Your task to perform on an android device: check storage Image 0: 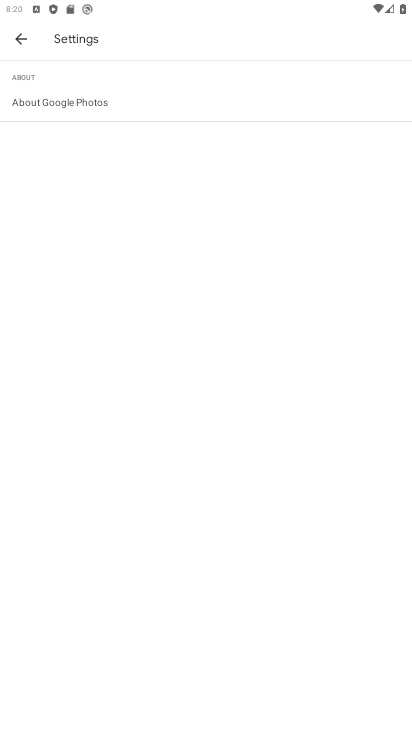
Step 0: press home button
Your task to perform on an android device: check storage Image 1: 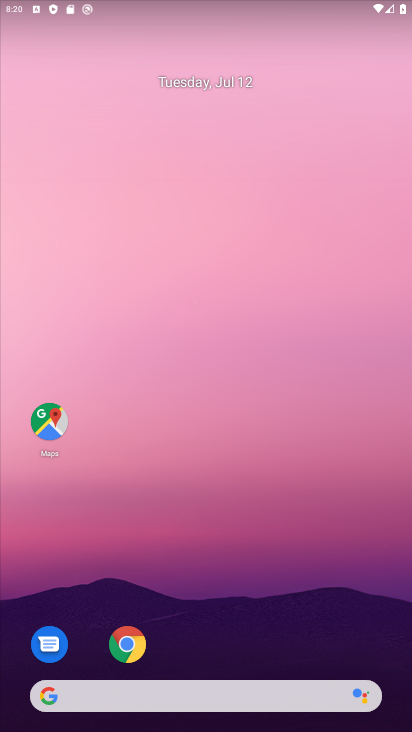
Step 1: drag from (377, 628) to (354, 154)
Your task to perform on an android device: check storage Image 2: 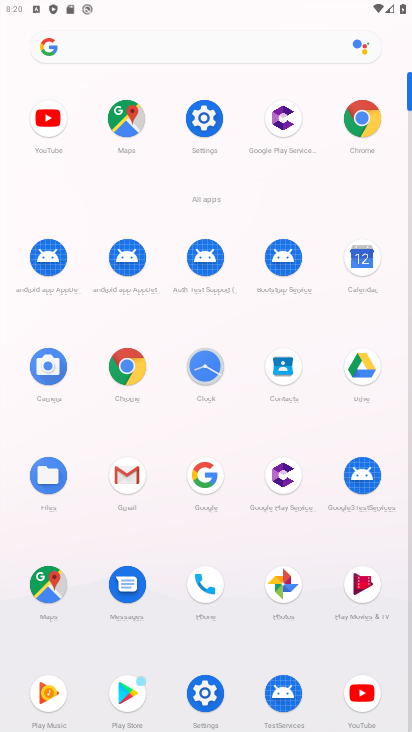
Step 2: click (203, 692)
Your task to perform on an android device: check storage Image 3: 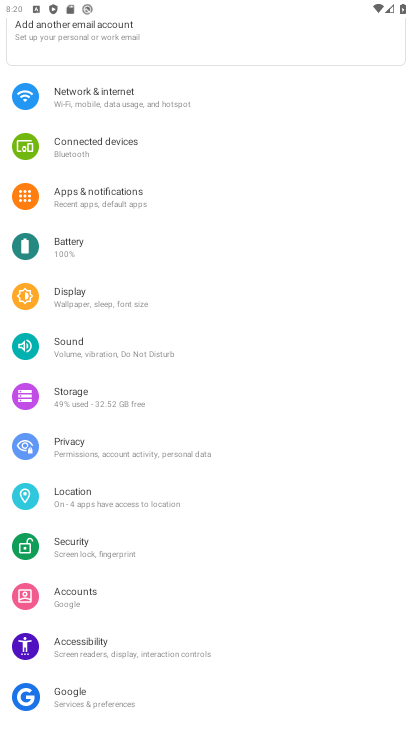
Step 3: click (75, 390)
Your task to perform on an android device: check storage Image 4: 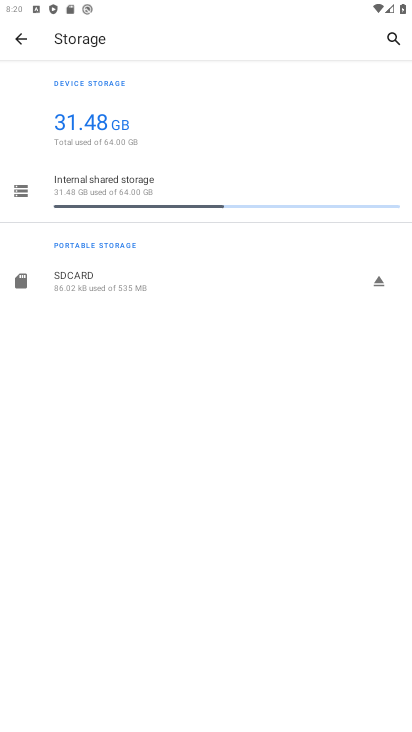
Step 4: task complete